Your task to perform on an android device: open device folders in google photos Image 0: 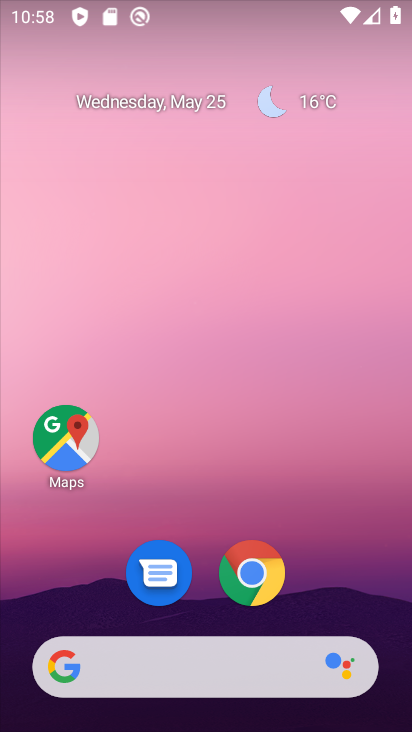
Step 0: drag from (349, 616) to (282, 27)
Your task to perform on an android device: open device folders in google photos Image 1: 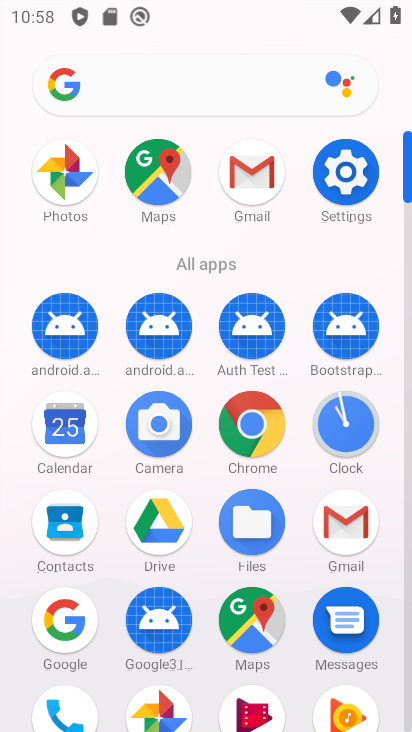
Step 1: click (67, 169)
Your task to perform on an android device: open device folders in google photos Image 2: 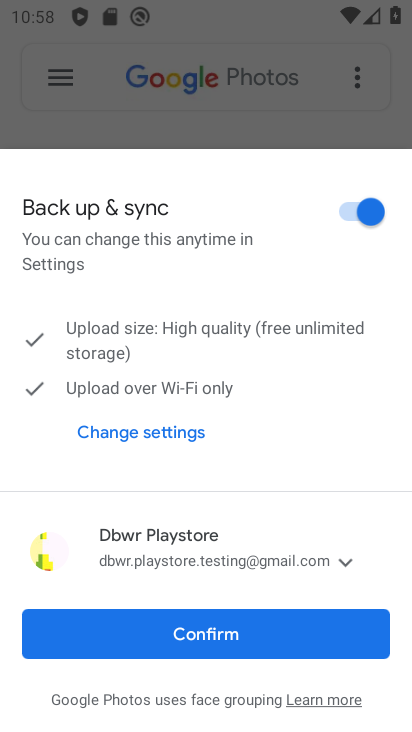
Step 2: click (200, 629)
Your task to perform on an android device: open device folders in google photos Image 3: 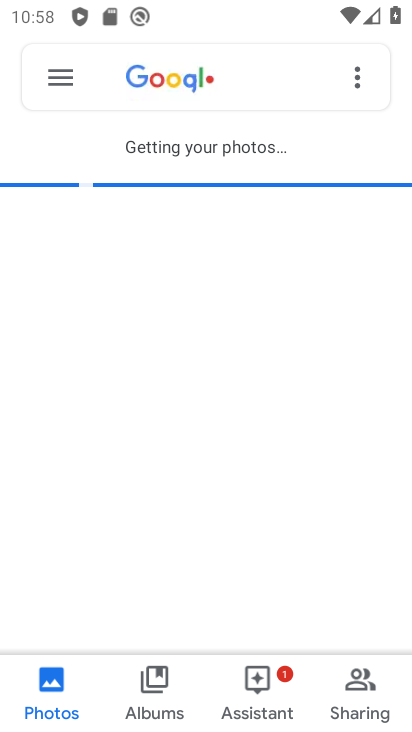
Step 3: click (57, 79)
Your task to perform on an android device: open device folders in google photos Image 4: 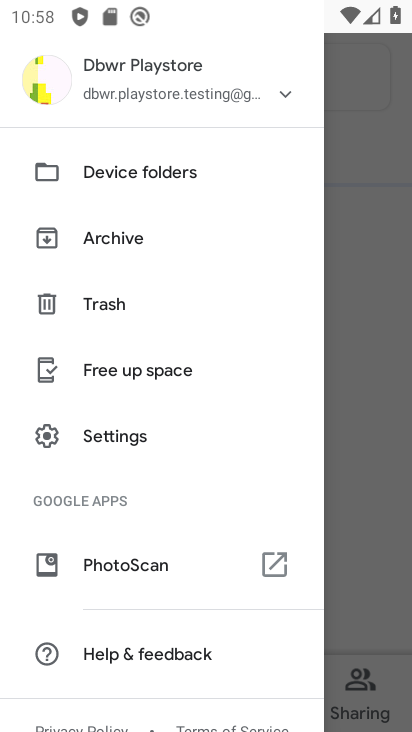
Step 4: click (94, 175)
Your task to perform on an android device: open device folders in google photos Image 5: 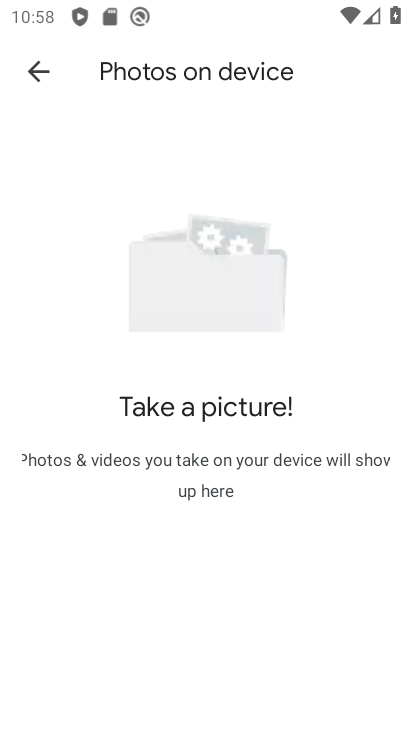
Step 5: task complete